Your task to perform on an android device: See recent photos Image 0: 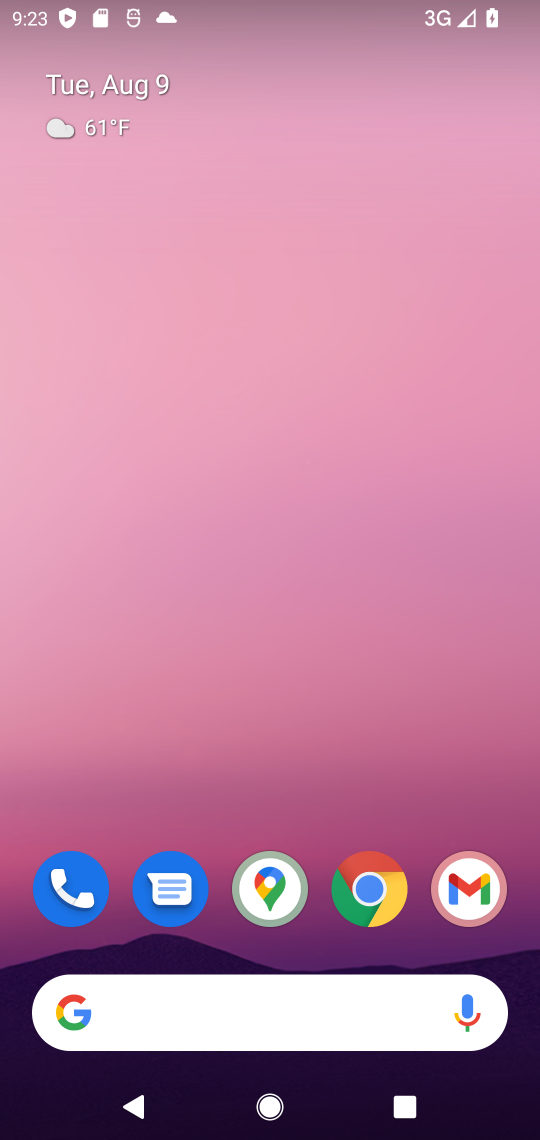
Step 0: drag from (366, 719) to (383, 24)
Your task to perform on an android device: See recent photos Image 1: 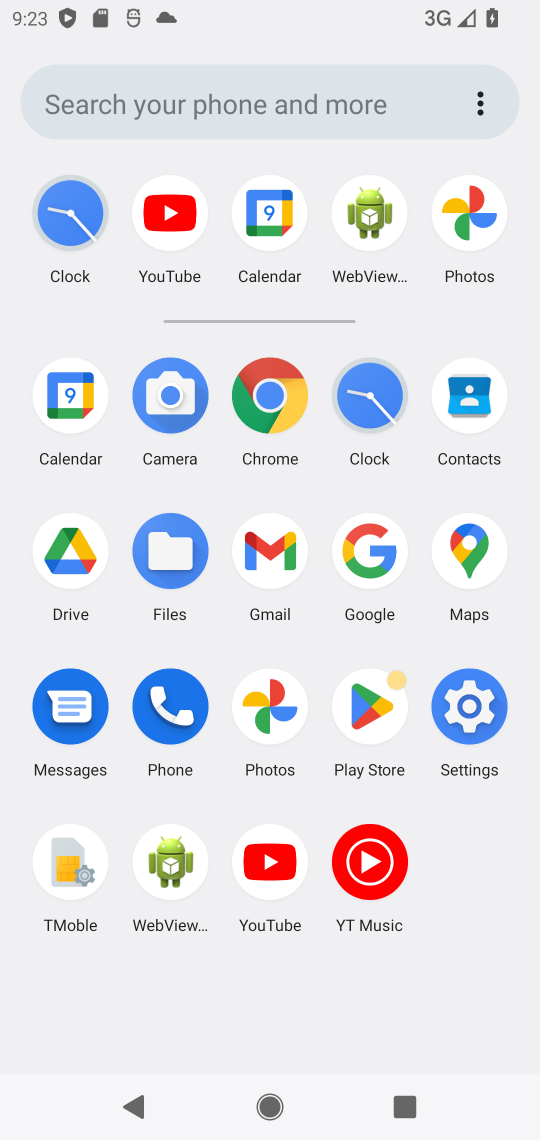
Step 1: click (256, 723)
Your task to perform on an android device: See recent photos Image 2: 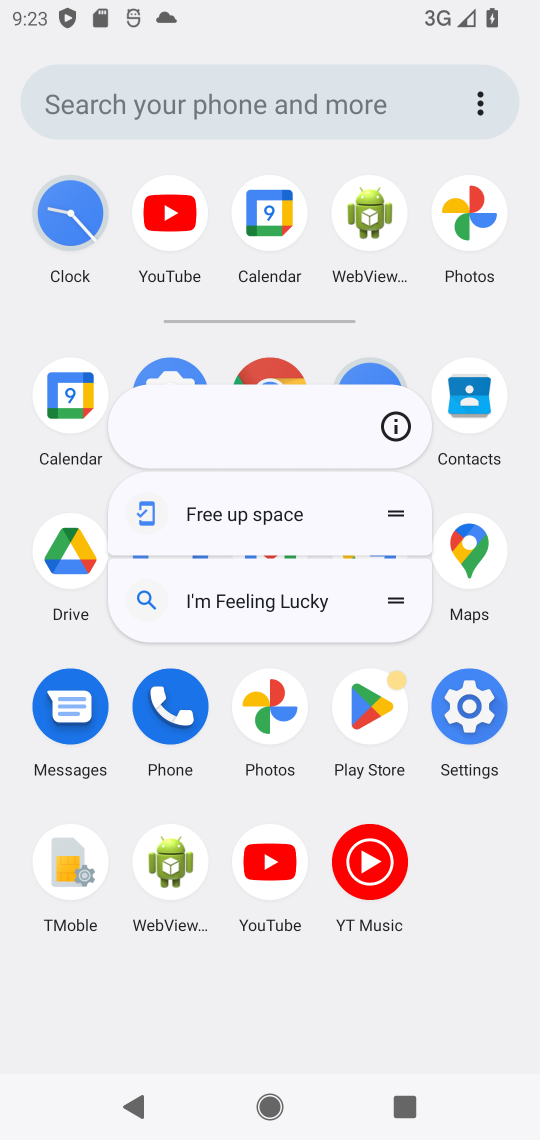
Step 2: click (256, 720)
Your task to perform on an android device: See recent photos Image 3: 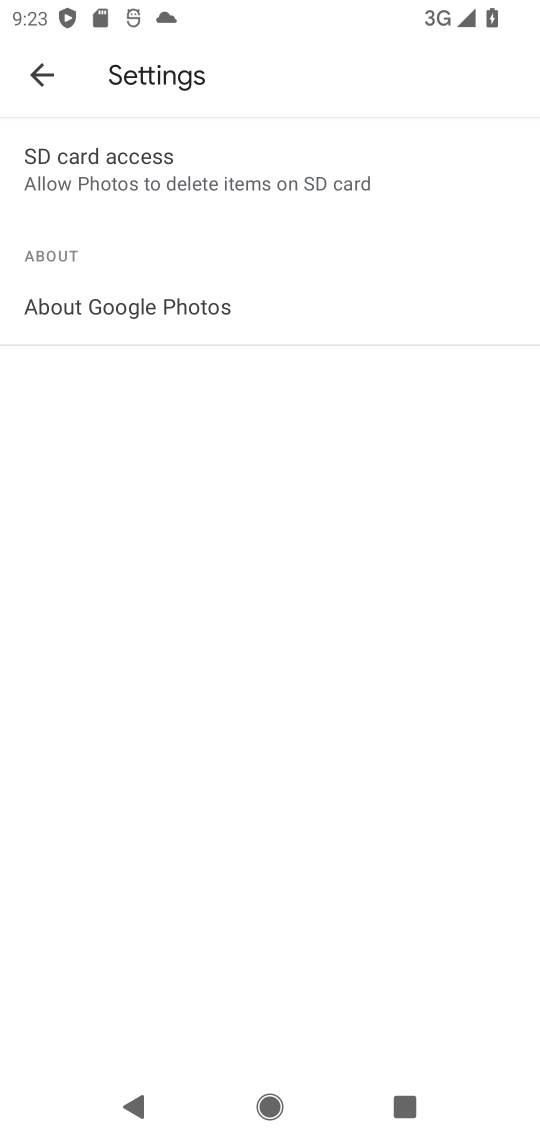
Step 3: click (7, 111)
Your task to perform on an android device: See recent photos Image 4: 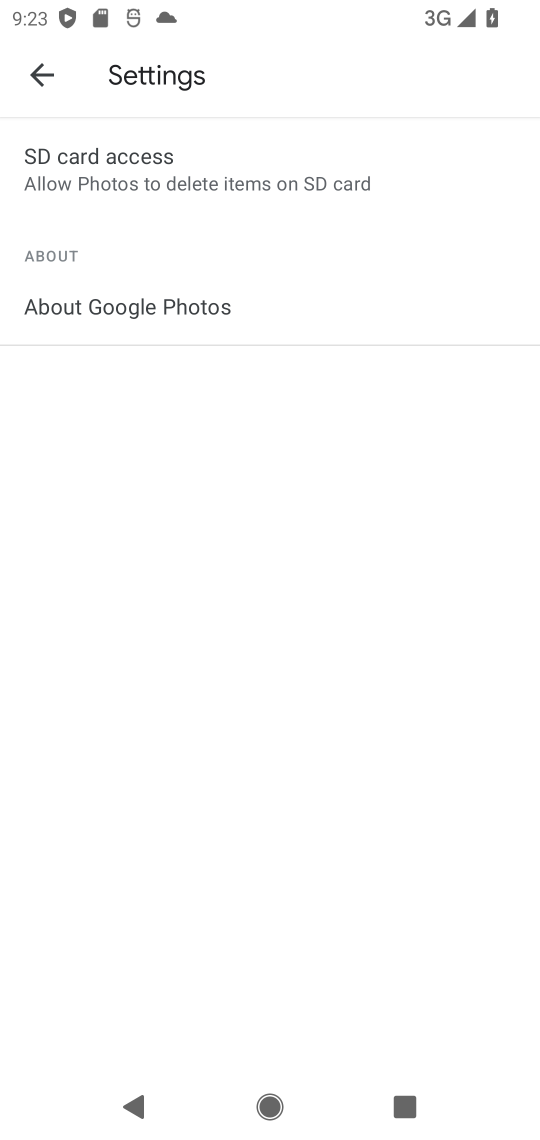
Step 4: click (20, 79)
Your task to perform on an android device: See recent photos Image 5: 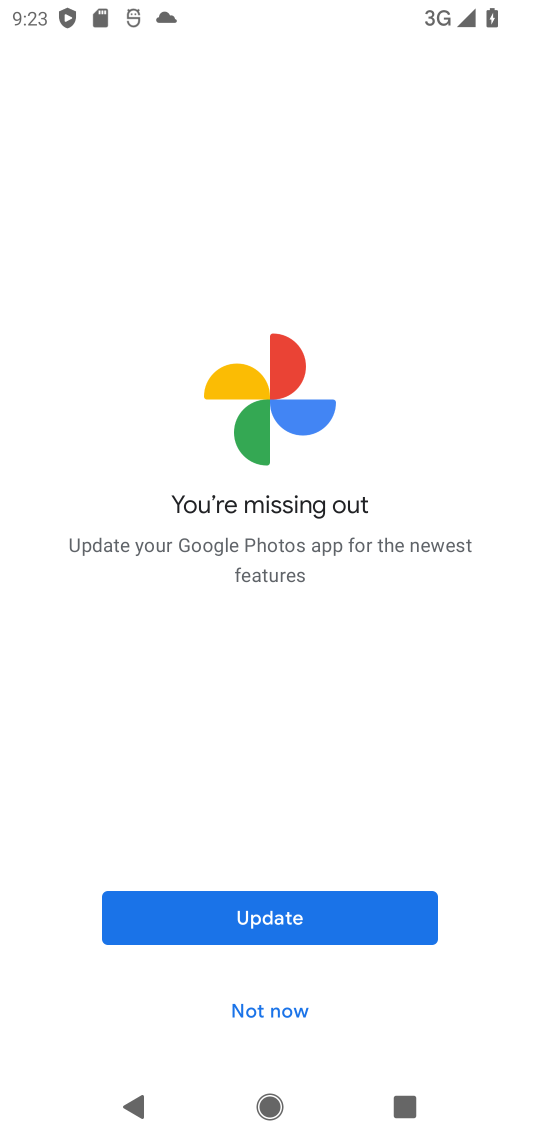
Step 5: click (282, 935)
Your task to perform on an android device: See recent photos Image 6: 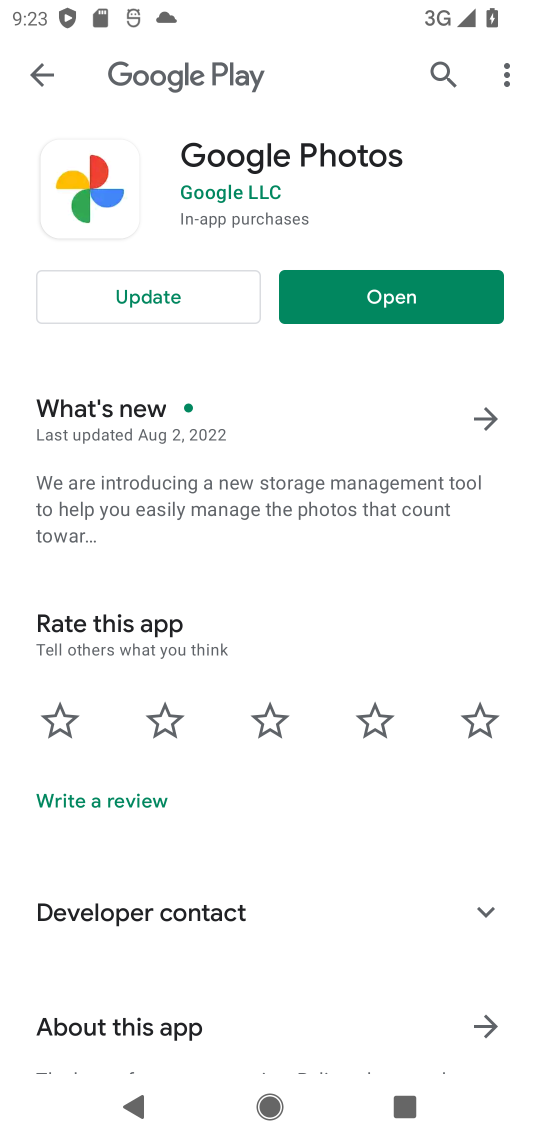
Step 6: click (84, 283)
Your task to perform on an android device: See recent photos Image 7: 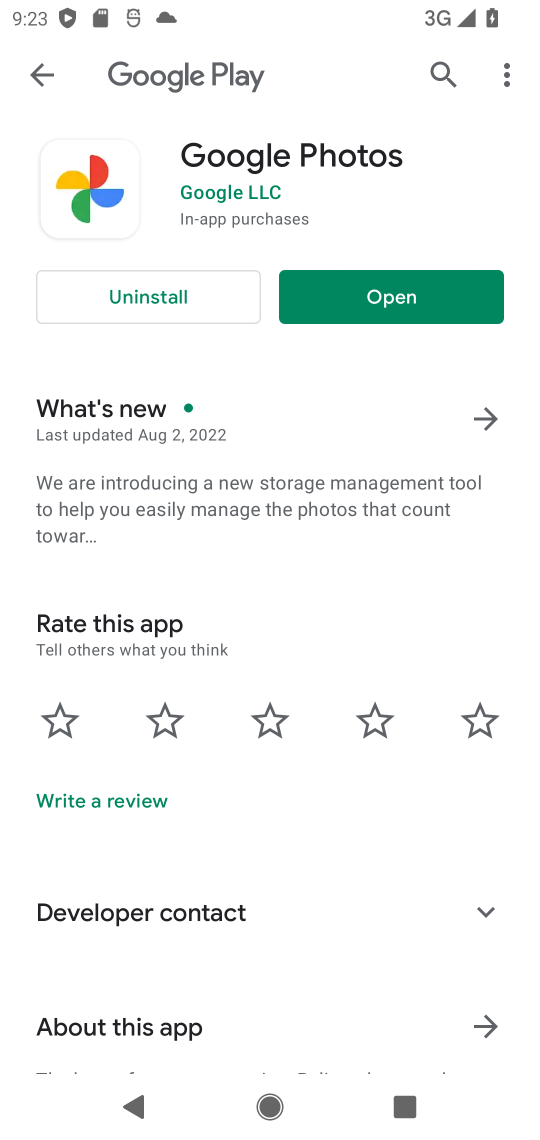
Step 7: click (379, 277)
Your task to perform on an android device: See recent photos Image 8: 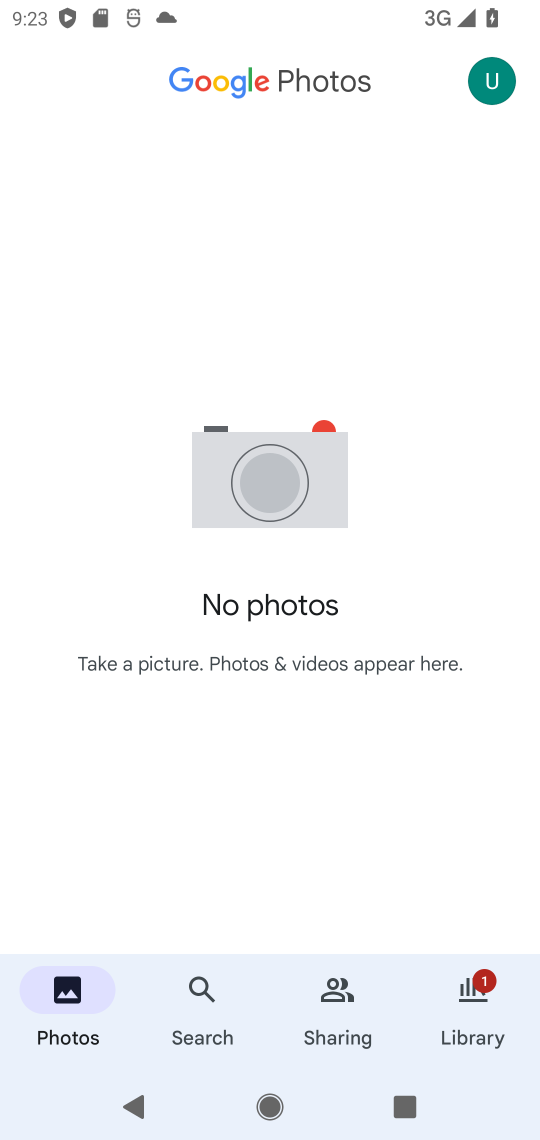
Step 8: task complete